Your task to perform on an android device: read, delete, or share a saved page in the chrome app Image 0: 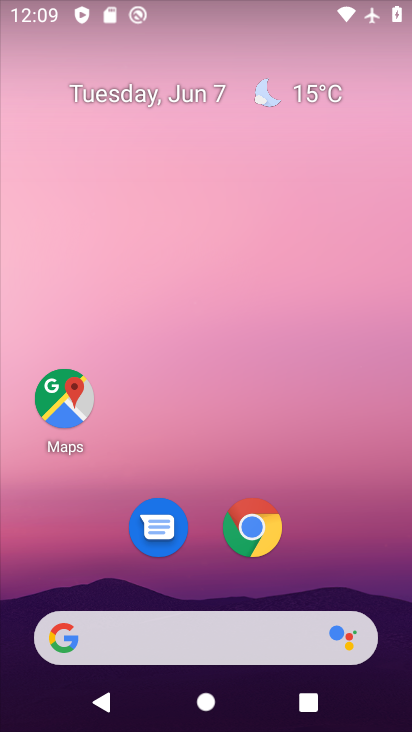
Step 0: click (239, 291)
Your task to perform on an android device: read, delete, or share a saved page in the chrome app Image 1: 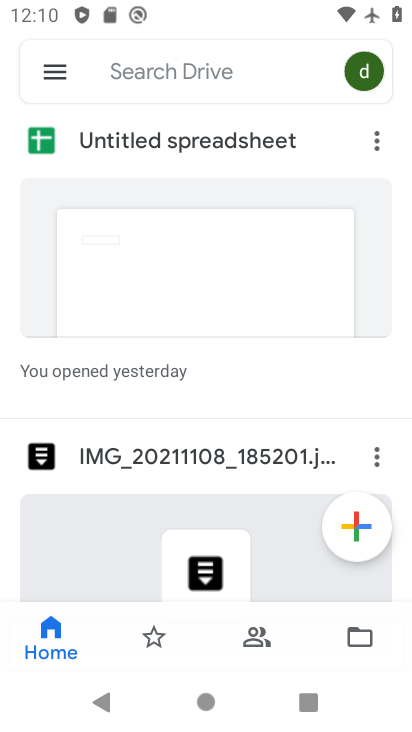
Step 1: press back button
Your task to perform on an android device: read, delete, or share a saved page in the chrome app Image 2: 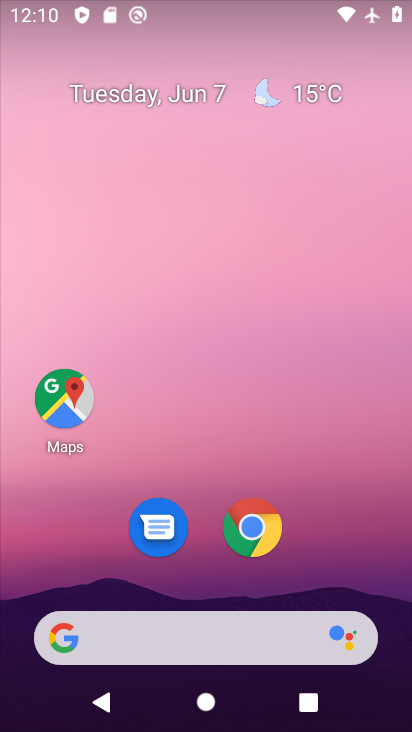
Step 2: drag from (237, 567) to (160, 92)
Your task to perform on an android device: read, delete, or share a saved page in the chrome app Image 3: 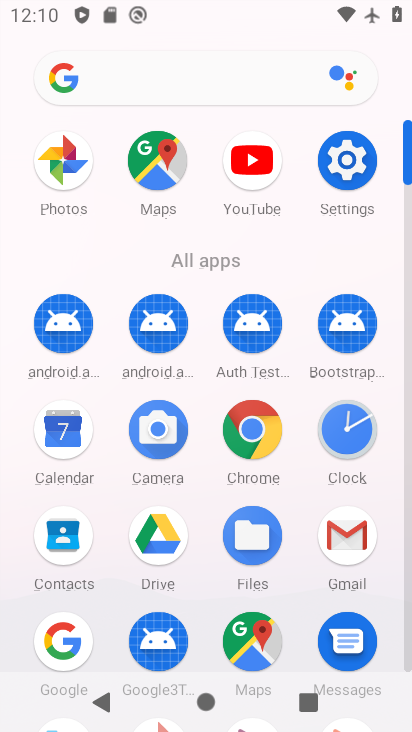
Step 3: click (246, 426)
Your task to perform on an android device: read, delete, or share a saved page in the chrome app Image 4: 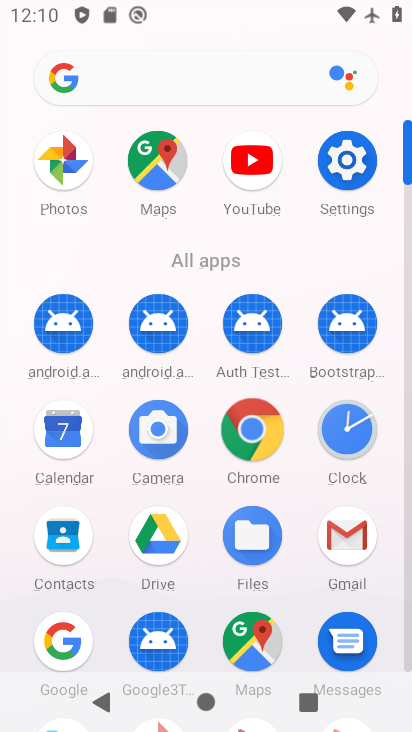
Step 4: click (246, 426)
Your task to perform on an android device: read, delete, or share a saved page in the chrome app Image 5: 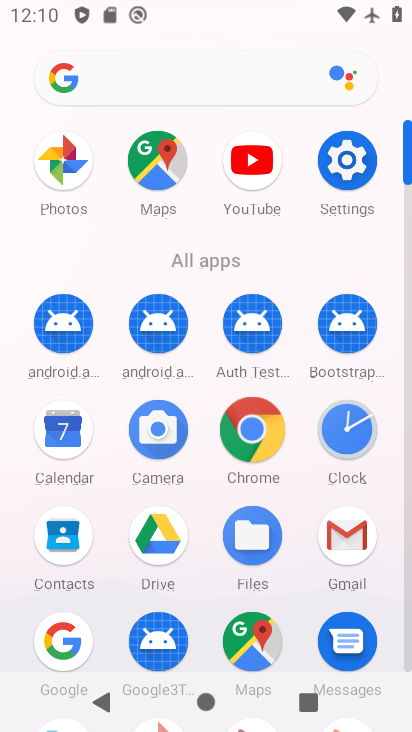
Step 5: click (247, 426)
Your task to perform on an android device: read, delete, or share a saved page in the chrome app Image 6: 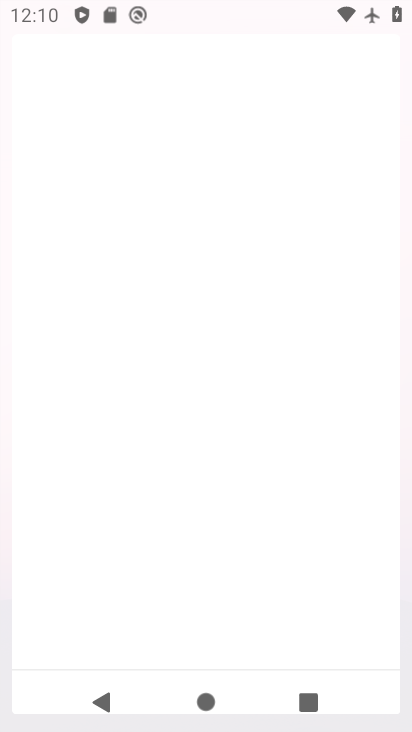
Step 6: click (244, 435)
Your task to perform on an android device: read, delete, or share a saved page in the chrome app Image 7: 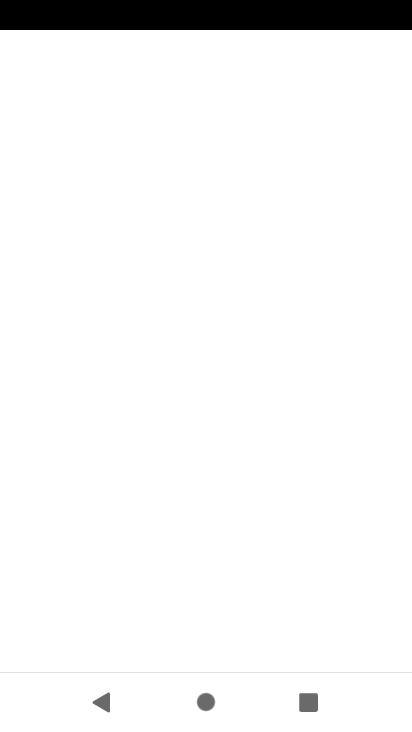
Step 7: click (244, 435)
Your task to perform on an android device: read, delete, or share a saved page in the chrome app Image 8: 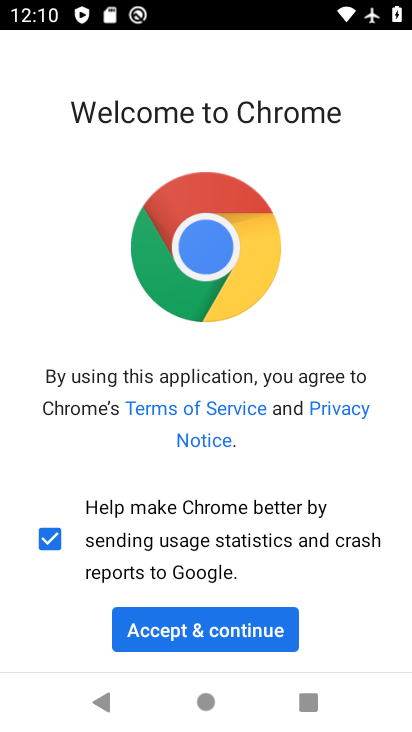
Step 8: click (215, 623)
Your task to perform on an android device: read, delete, or share a saved page in the chrome app Image 9: 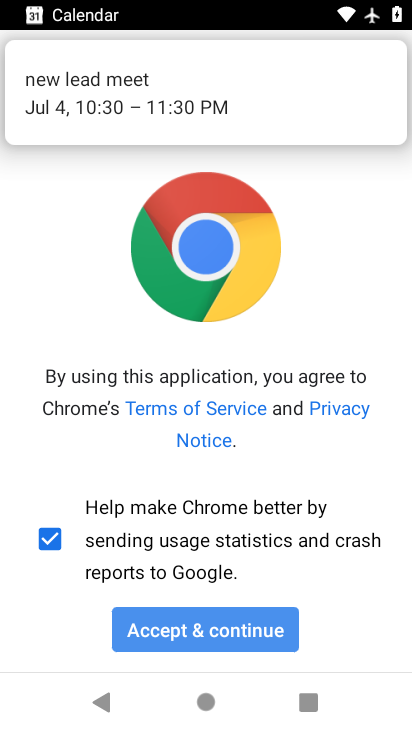
Step 9: click (214, 623)
Your task to perform on an android device: read, delete, or share a saved page in the chrome app Image 10: 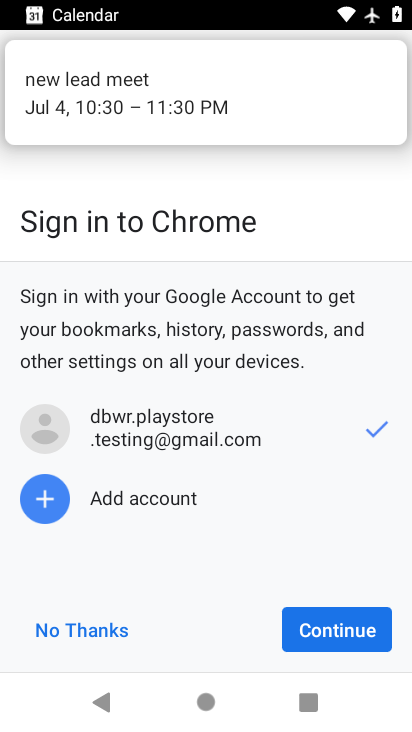
Step 10: click (214, 623)
Your task to perform on an android device: read, delete, or share a saved page in the chrome app Image 11: 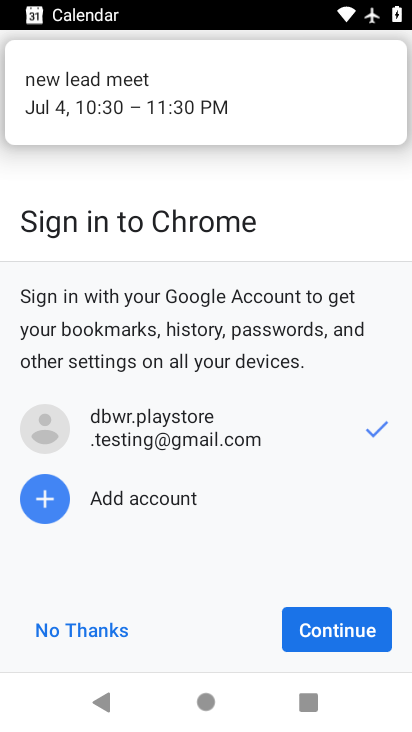
Step 11: click (214, 623)
Your task to perform on an android device: read, delete, or share a saved page in the chrome app Image 12: 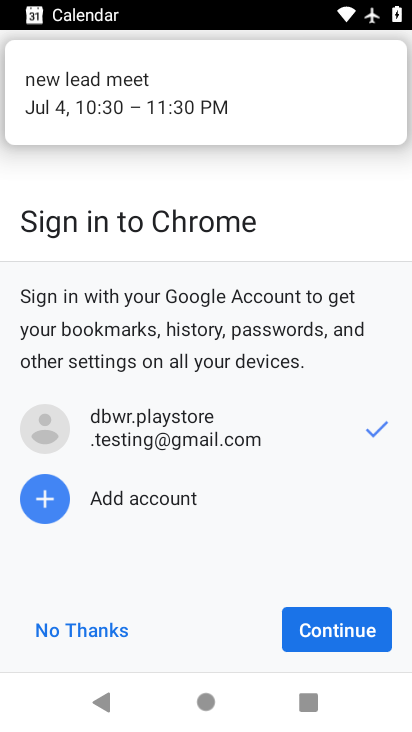
Step 12: click (214, 622)
Your task to perform on an android device: read, delete, or share a saved page in the chrome app Image 13: 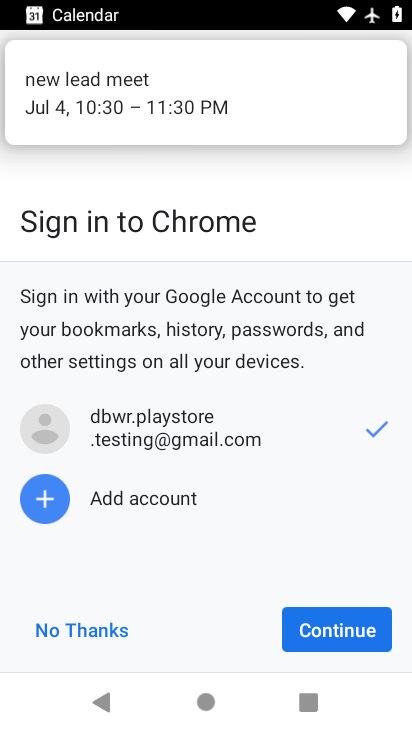
Step 13: click (349, 629)
Your task to perform on an android device: read, delete, or share a saved page in the chrome app Image 14: 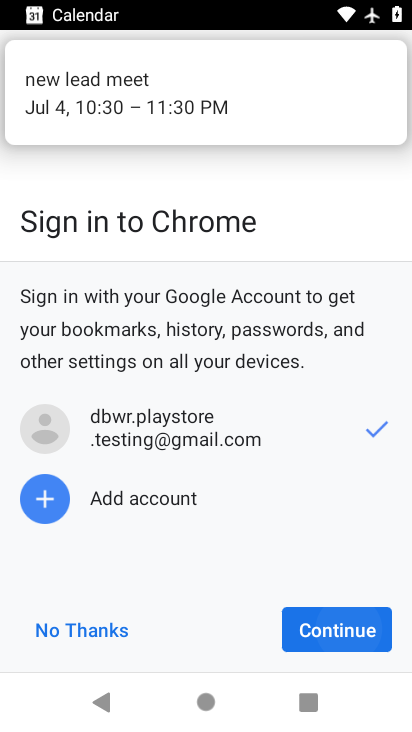
Step 14: click (349, 630)
Your task to perform on an android device: read, delete, or share a saved page in the chrome app Image 15: 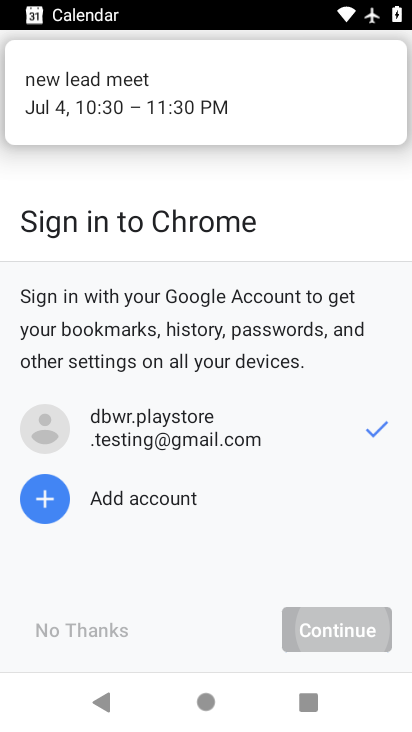
Step 15: click (349, 630)
Your task to perform on an android device: read, delete, or share a saved page in the chrome app Image 16: 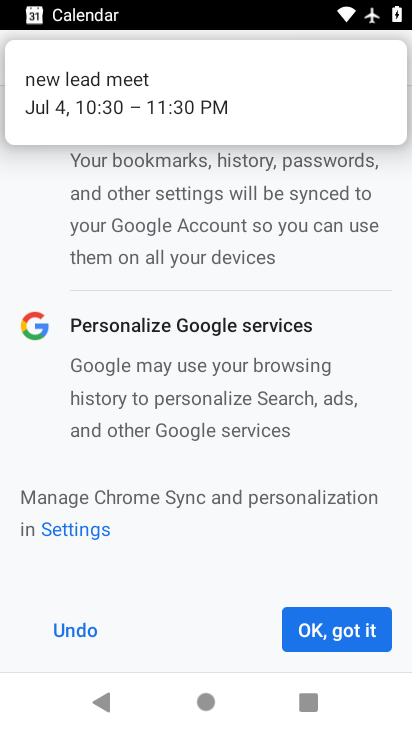
Step 16: click (349, 630)
Your task to perform on an android device: read, delete, or share a saved page in the chrome app Image 17: 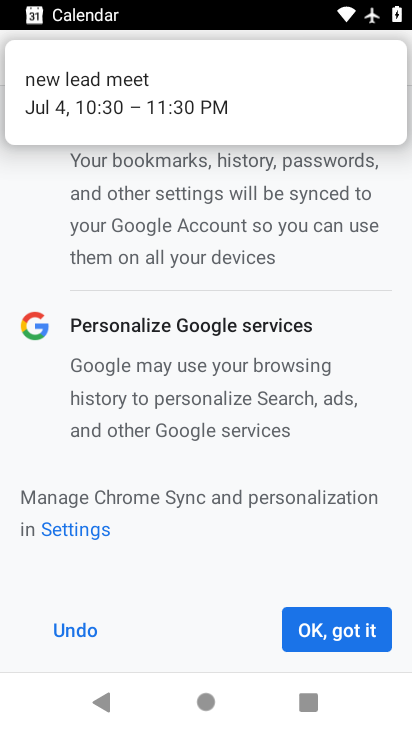
Step 17: click (349, 631)
Your task to perform on an android device: read, delete, or share a saved page in the chrome app Image 18: 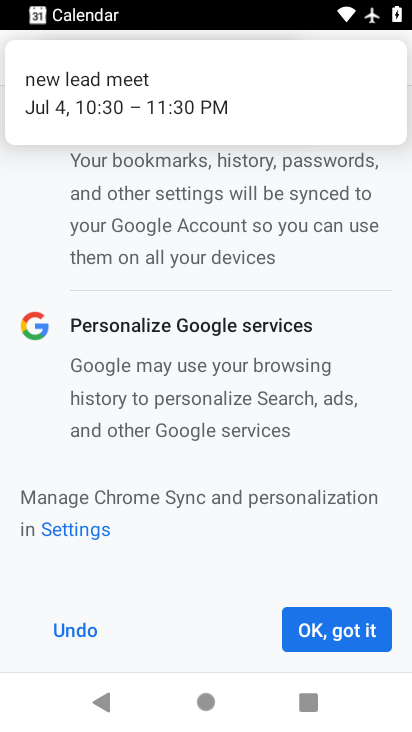
Step 18: click (327, 641)
Your task to perform on an android device: read, delete, or share a saved page in the chrome app Image 19: 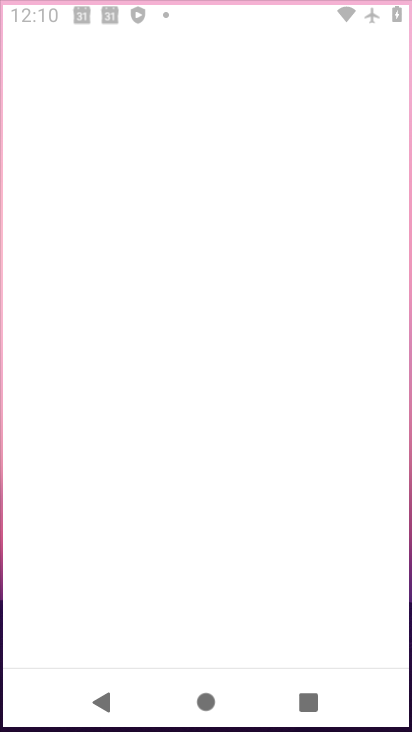
Step 19: click (327, 642)
Your task to perform on an android device: read, delete, or share a saved page in the chrome app Image 20: 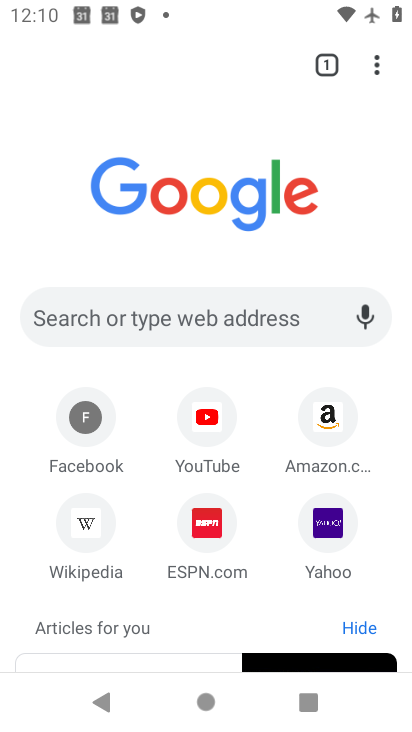
Step 20: drag from (380, 61) to (154, 432)
Your task to perform on an android device: read, delete, or share a saved page in the chrome app Image 21: 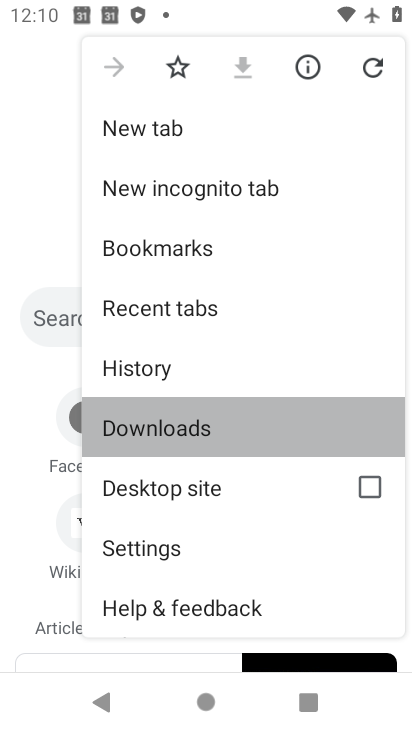
Step 21: click (154, 432)
Your task to perform on an android device: read, delete, or share a saved page in the chrome app Image 22: 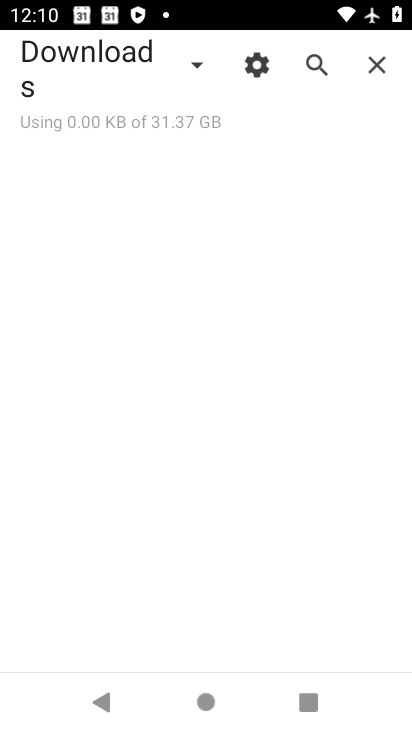
Step 22: click (196, 61)
Your task to perform on an android device: read, delete, or share a saved page in the chrome app Image 23: 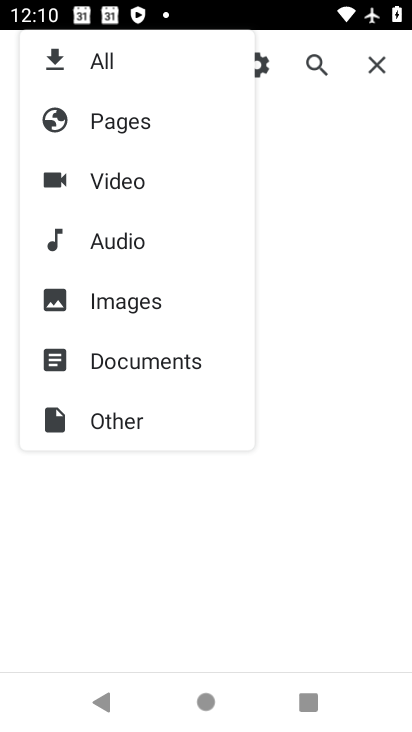
Step 23: click (120, 124)
Your task to perform on an android device: read, delete, or share a saved page in the chrome app Image 24: 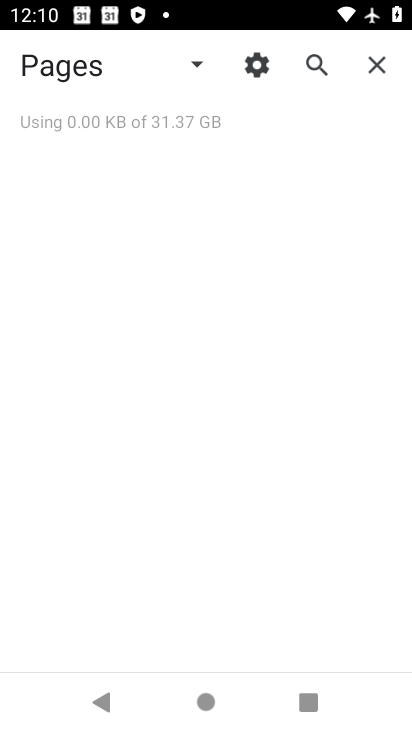
Step 24: task complete